Your task to perform on an android device: Open eBay Image 0: 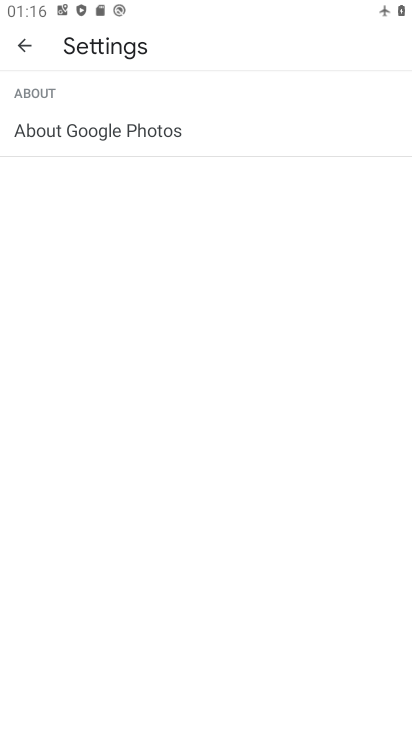
Step 0: press home button
Your task to perform on an android device: Open eBay Image 1: 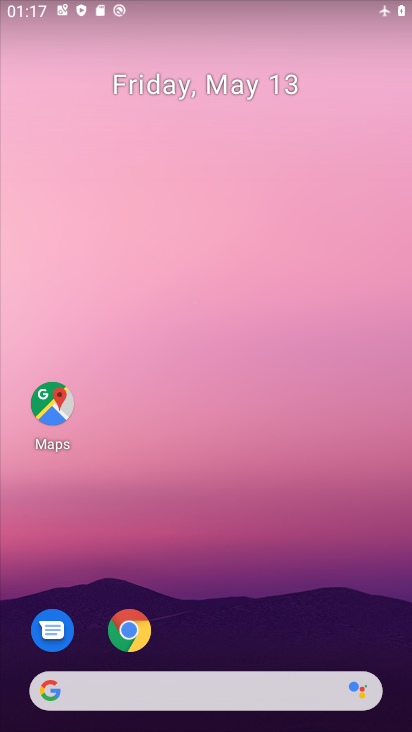
Step 1: drag from (312, 709) to (218, 294)
Your task to perform on an android device: Open eBay Image 2: 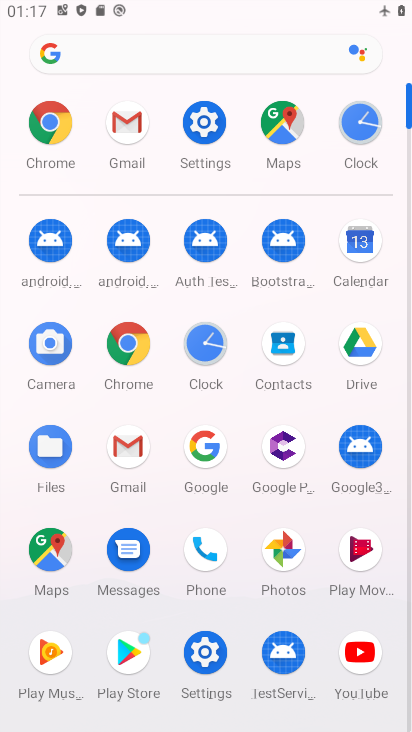
Step 2: click (36, 130)
Your task to perform on an android device: Open eBay Image 3: 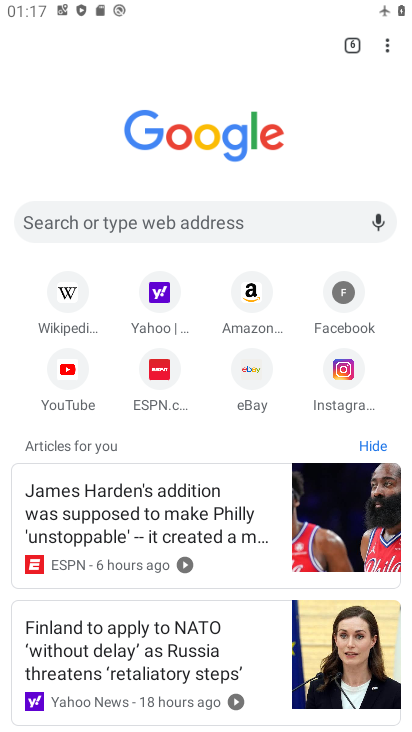
Step 3: click (257, 364)
Your task to perform on an android device: Open eBay Image 4: 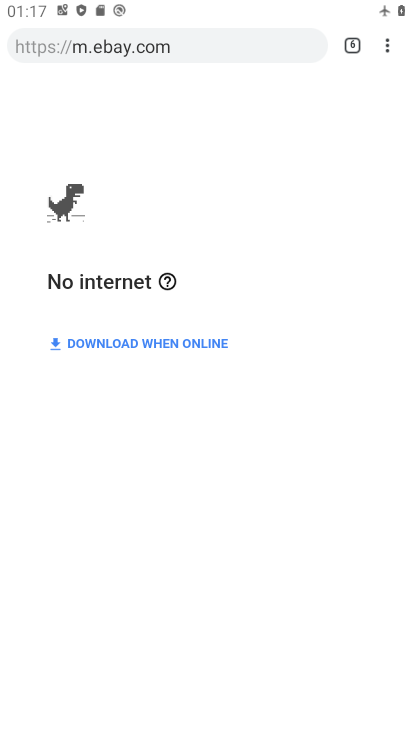
Step 4: press home button
Your task to perform on an android device: Open eBay Image 5: 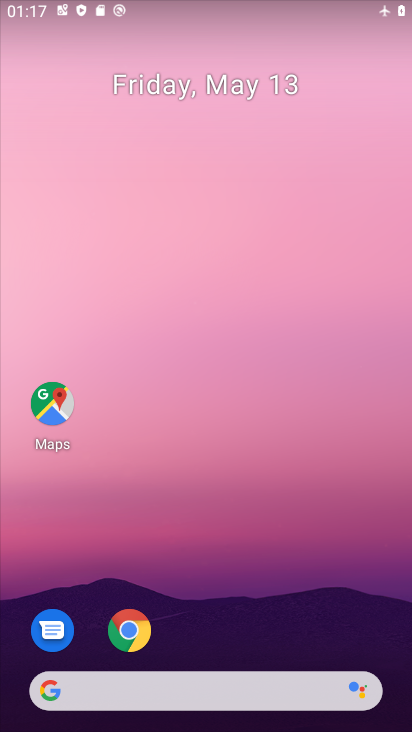
Step 5: drag from (282, 592) to (257, 418)
Your task to perform on an android device: Open eBay Image 6: 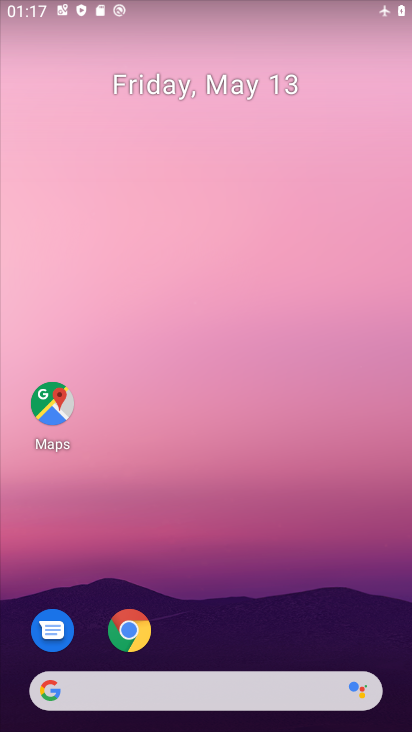
Step 6: drag from (283, 718) to (201, 359)
Your task to perform on an android device: Open eBay Image 7: 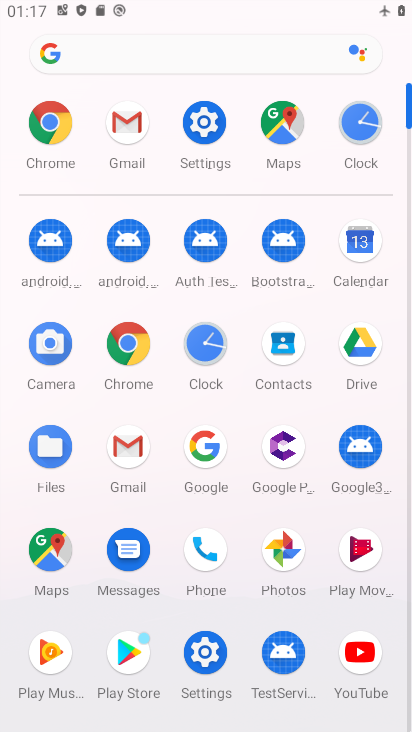
Step 7: click (54, 122)
Your task to perform on an android device: Open eBay Image 8: 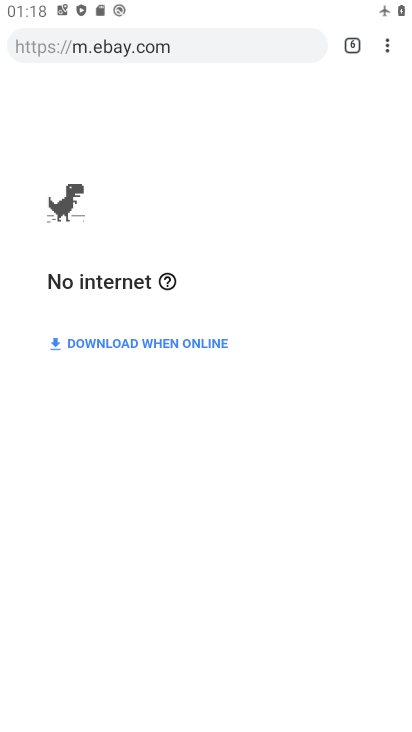
Step 8: press home button
Your task to perform on an android device: Open eBay Image 9: 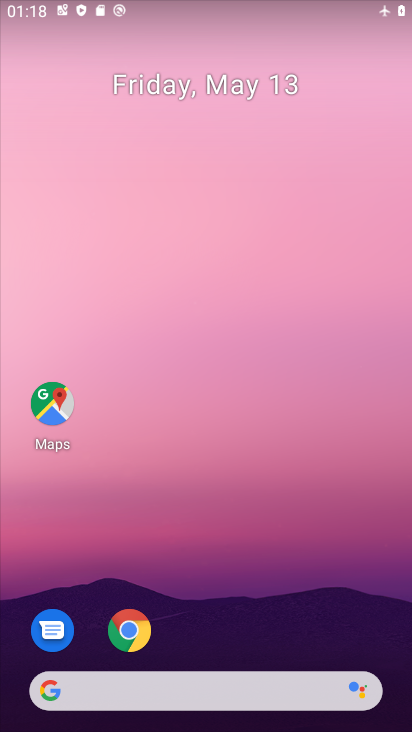
Step 9: drag from (264, 671) to (223, 171)
Your task to perform on an android device: Open eBay Image 10: 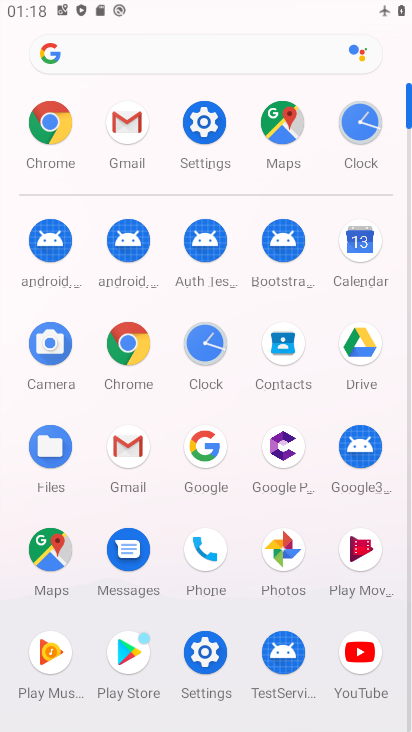
Step 10: click (201, 118)
Your task to perform on an android device: Open eBay Image 11: 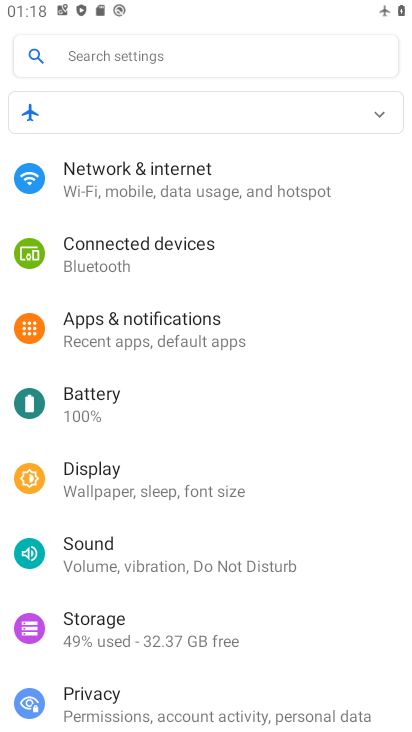
Step 11: click (378, 112)
Your task to perform on an android device: Open eBay Image 12: 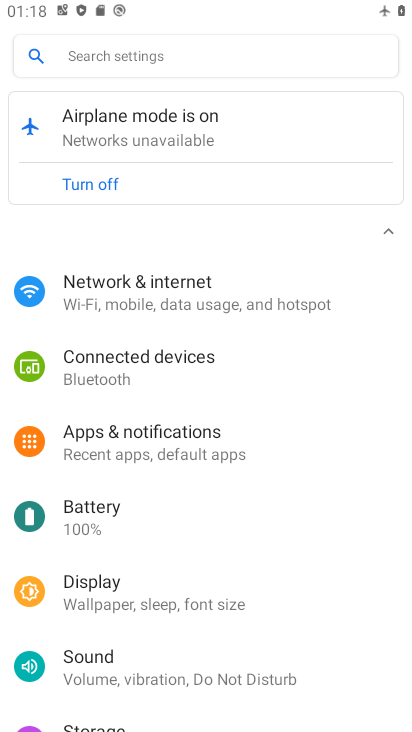
Step 12: click (99, 184)
Your task to perform on an android device: Open eBay Image 13: 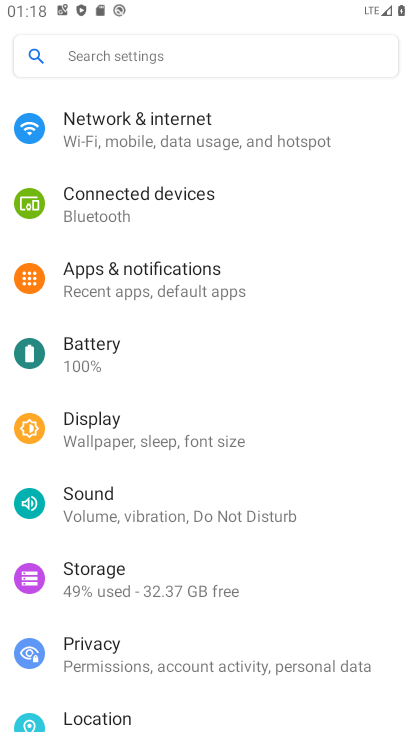
Step 13: press home button
Your task to perform on an android device: Open eBay Image 14: 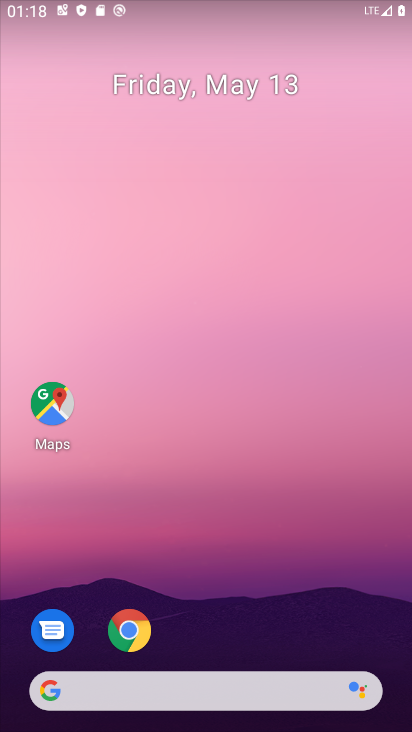
Step 14: drag from (146, 719) to (175, 212)
Your task to perform on an android device: Open eBay Image 15: 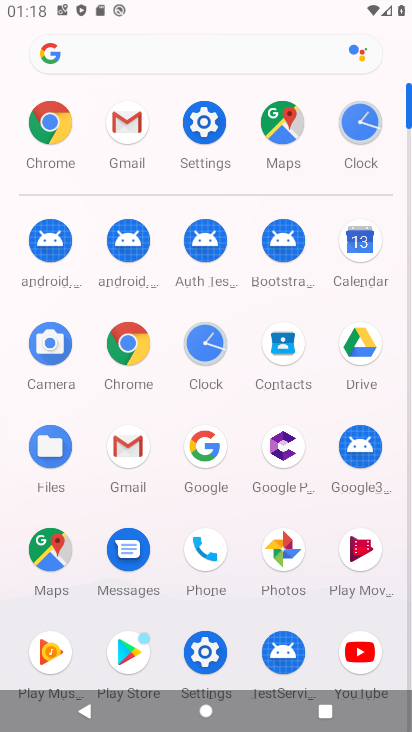
Step 15: click (58, 126)
Your task to perform on an android device: Open eBay Image 16: 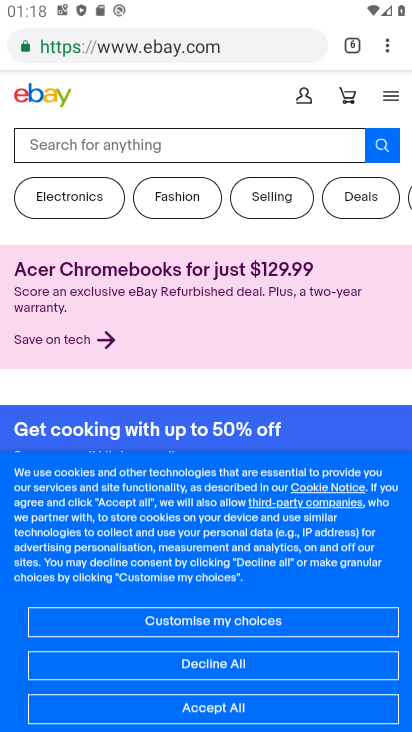
Step 16: task complete